Your task to perform on an android device: visit the assistant section in the google photos Image 0: 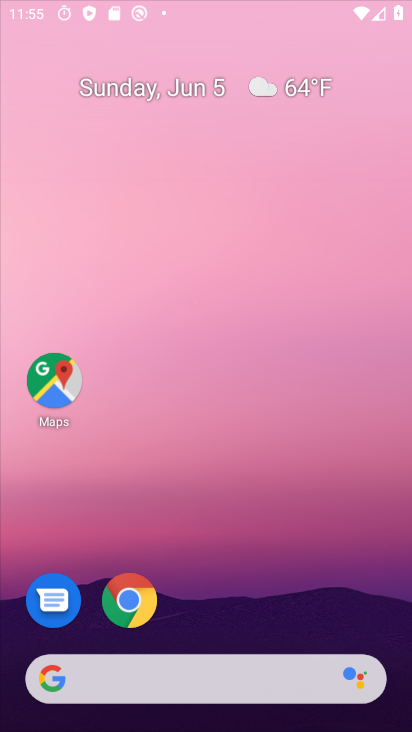
Step 0: drag from (215, 341) to (178, 96)
Your task to perform on an android device: visit the assistant section in the google photos Image 1: 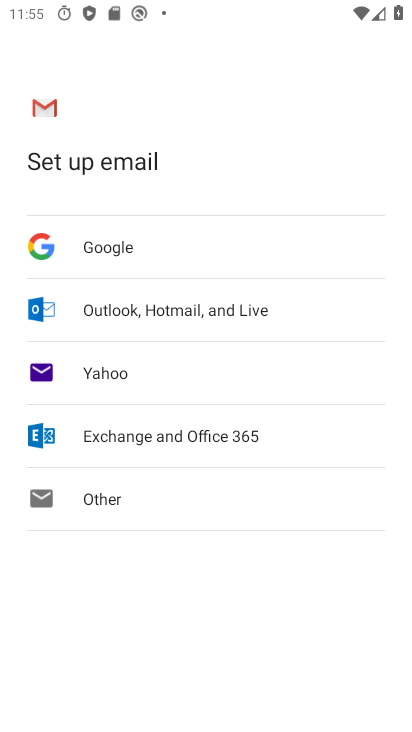
Step 1: press back button
Your task to perform on an android device: visit the assistant section in the google photos Image 2: 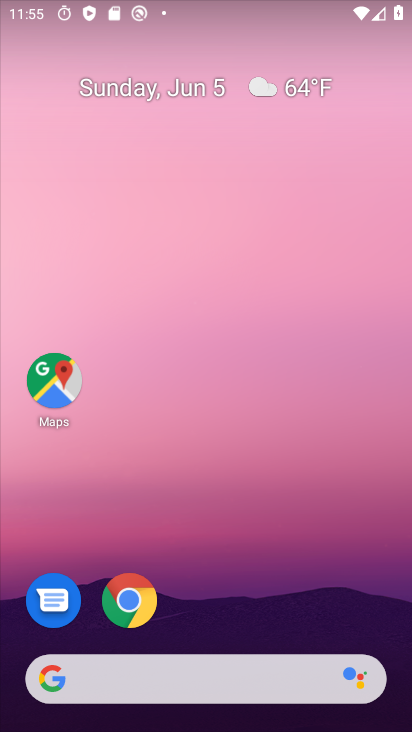
Step 2: drag from (305, 686) to (213, 122)
Your task to perform on an android device: visit the assistant section in the google photos Image 3: 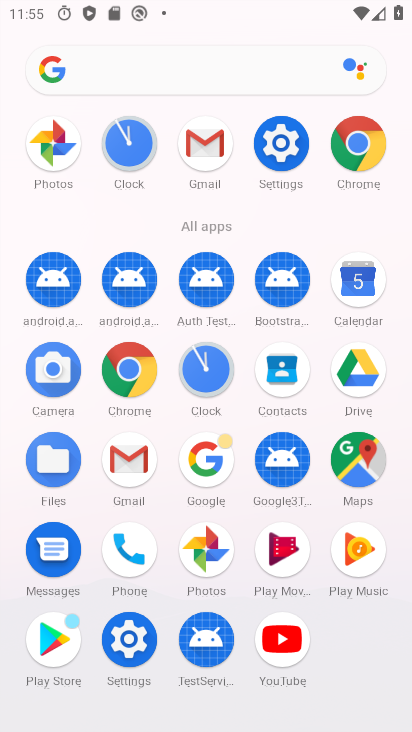
Step 3: click (202, 533)
Your task to perform on an android device: visit the assistant section in the google photos Image 4: 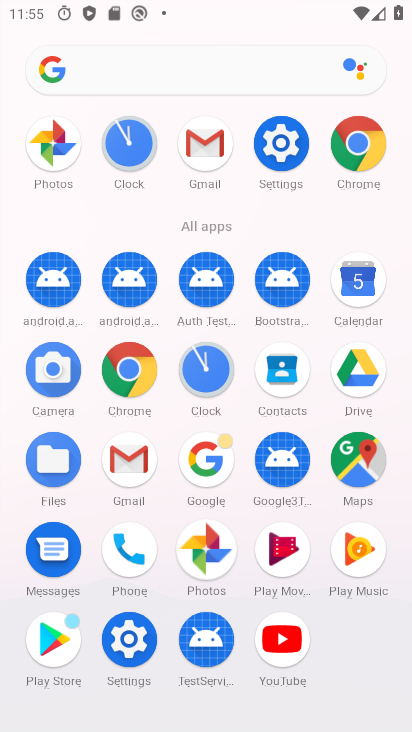
Step 4: click (202, 535)
Your task to perform on an android device: visit the assistant section in the google photos Image 5: 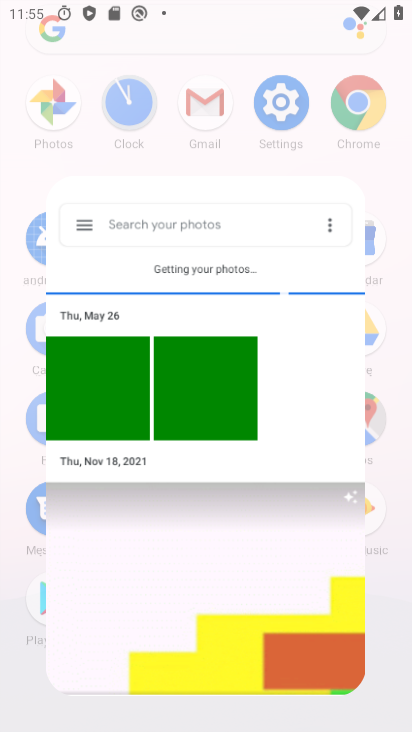
Step 5: click (202, 535)
Your task to perform on an android device: visit the assistant section in the google photos Image 6: 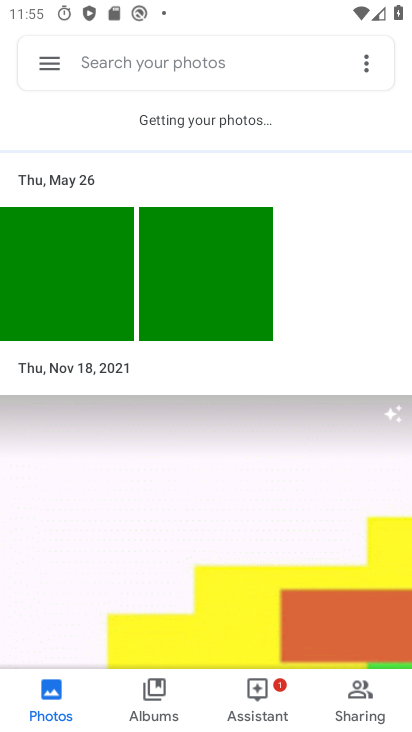
Step 6: click (263, 709)
Your task to perform on an android device: visit the assistant section in the google photos Image 7: 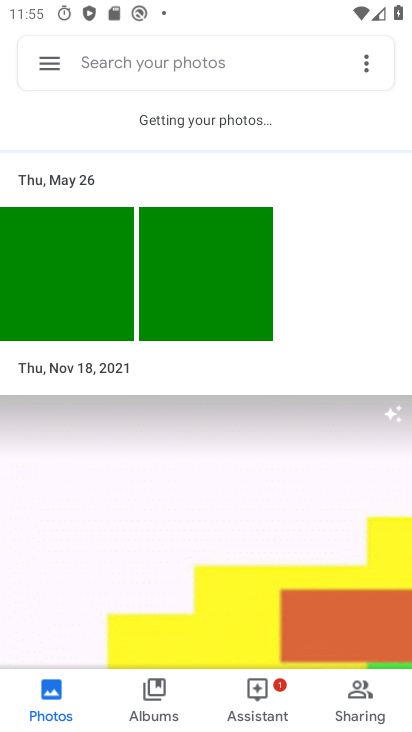
Step 7: click (264, 709)
Your task to perform on an android device: visit the assistant section in the google photos Image 8: 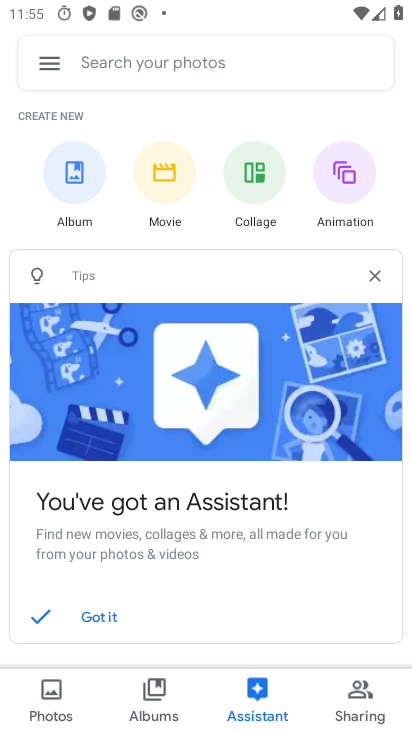
Step 8: task complete